Your task to perform on an android device: Open battery settings Image 0: 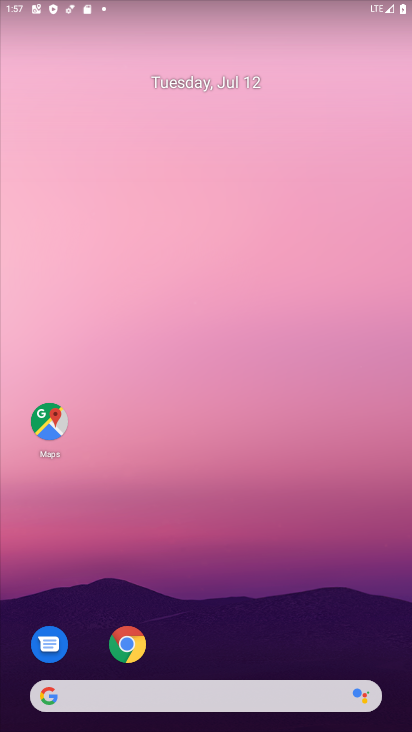
Step 0: drag from (223, 672) to (161, 27)
Your task to perform on an android device: Open battery settings Image 1: 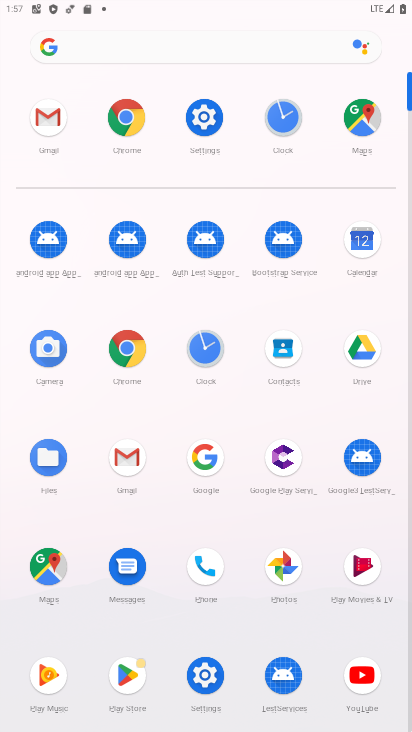
Step 1: click (199, 677)
Your task to perform on an android device: Open battery settings Image 2: 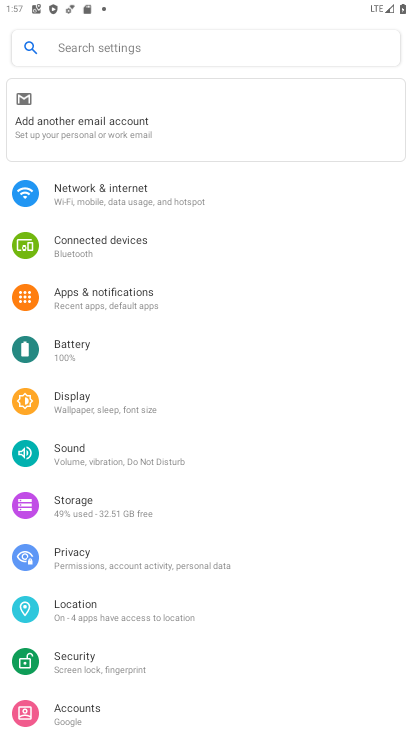
Step 2: click (61, 350)
Your task to perform on an android device: Open battery settings Image 3: 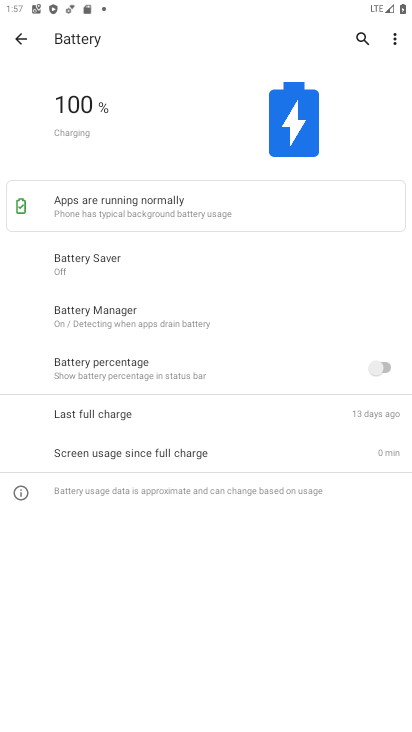
Step 3: task complete